Your task to perform on an android device: toggle notification dots Image 0: 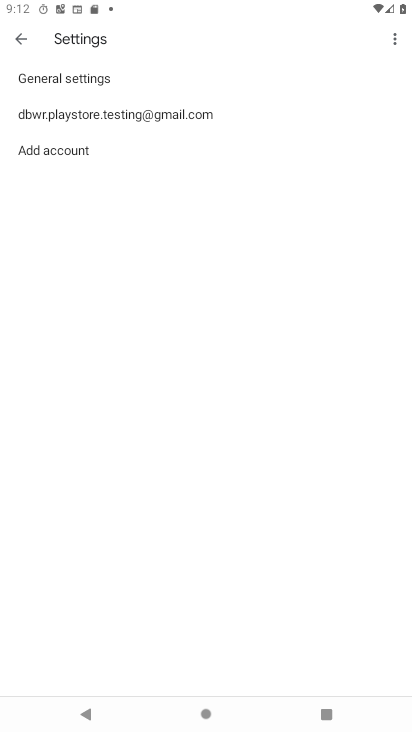
Step 0: press home button
Your task to perform on an android device: toggle notification dots Image 1: 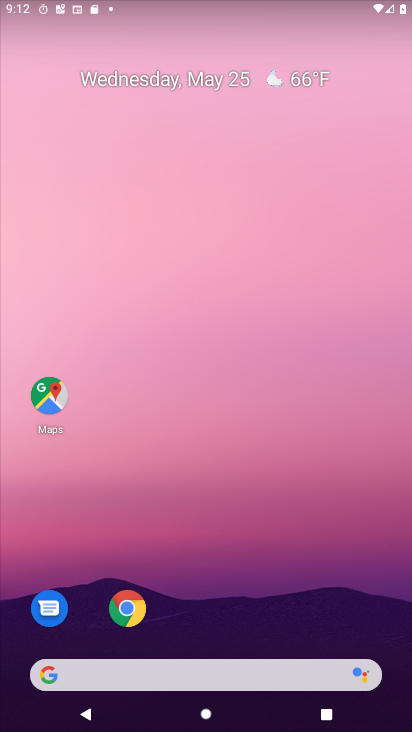
Step 1: drag from (231, 728) to (231, 109)
Your task to perform on an android device: toggle notification dots Image 2: 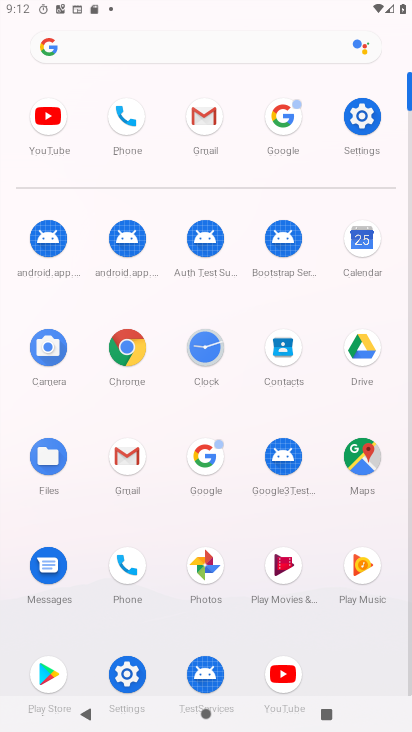
Step 2: click (358, 124)
Your task to perform on an android device: toggle notification dots Image 3: 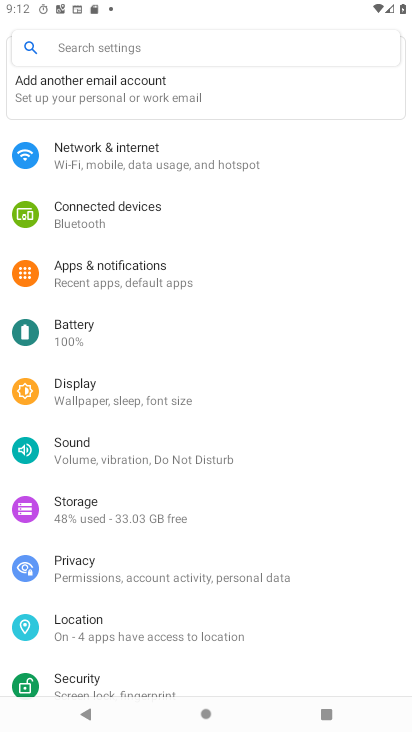
Step 3: click (126, 274)
Your task to perform on an android device: toggle notification dots Image 4: 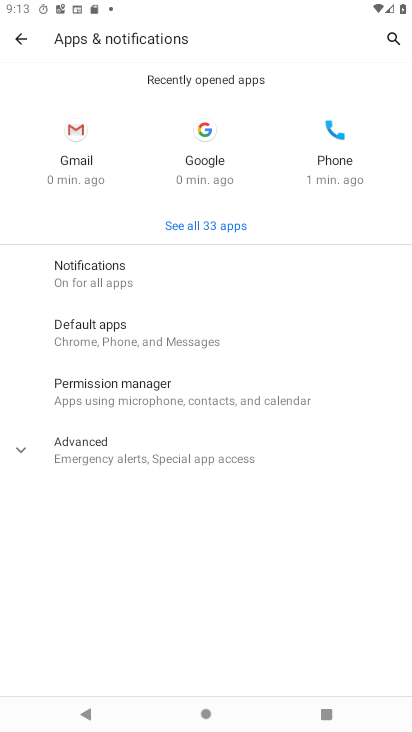
Step 4: click (100, 269)
Your task to perform on an android device: toggle notification dots Image 5: 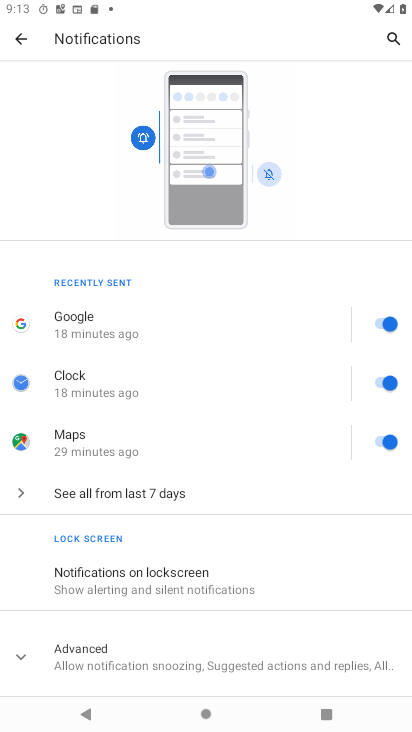
Step 5: click (125, 662)
Your task to perform on an android device: toggle notification dots Image 6: 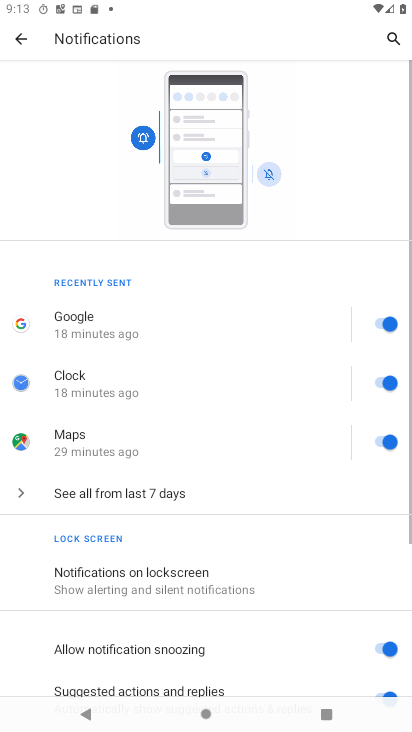
Step 6: drag from (151, 650) to (151, 355)
Your task to perform on an android device: toggle notification dots Image 7: 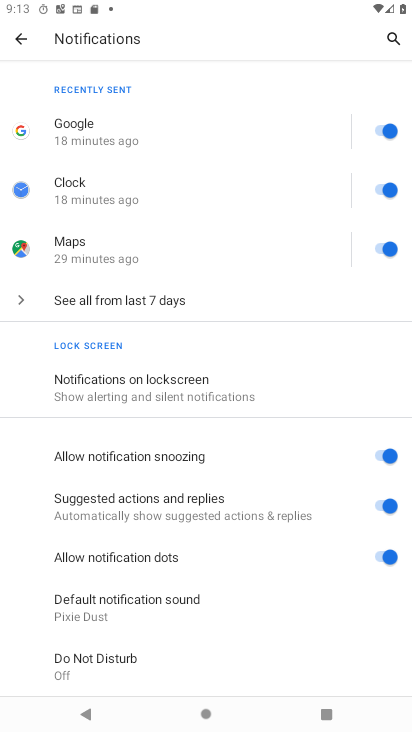
Step 7: click (383, 554)
Your task to perform on an android device: toggle notification dots Image 8: 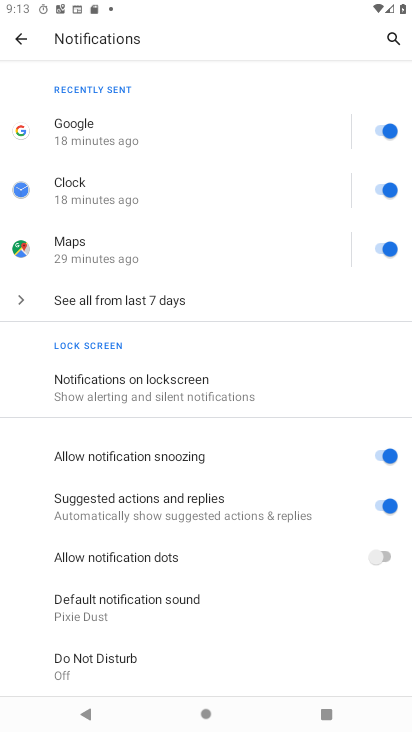
Step 8: task complete